Your task to perform on an android device: Search for vegetarian restaurants on Maps Image 0: 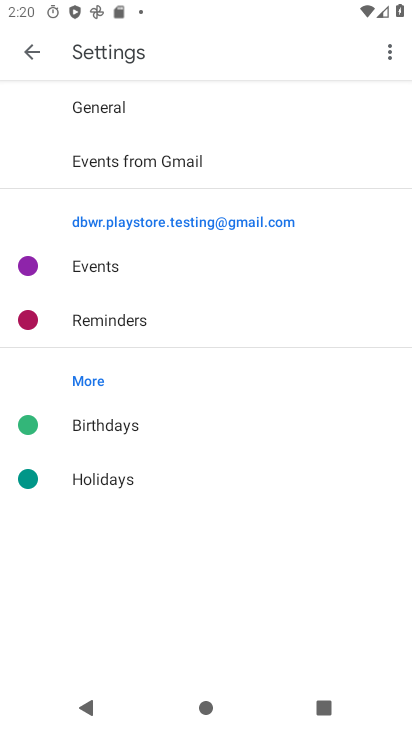
Step 0: press home button
Your task to perform on an android device: Search for vegetarian restaurants on Maps Image 1: 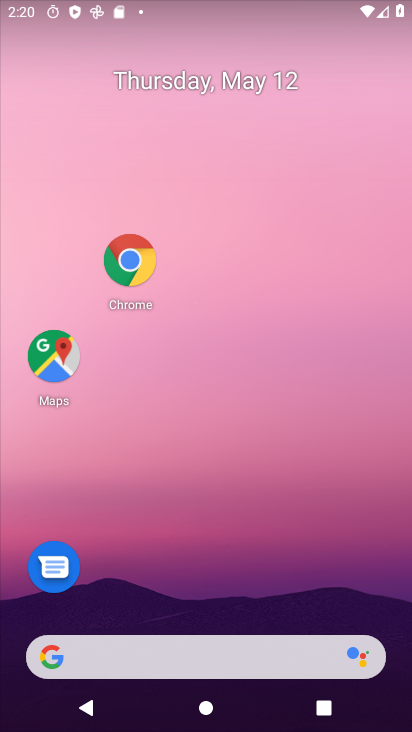
Step 1: click (64, 353)
Your task to perform on an android device: Search for vegetarian restaurants on Maps Image 2: 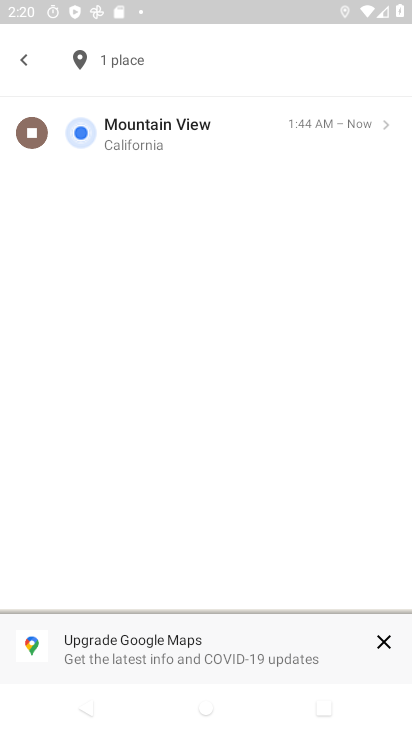
Step 2: click (374, 642)
Your task to perform on an android device: Search for vegetarian restaurants on Maps Image 3: 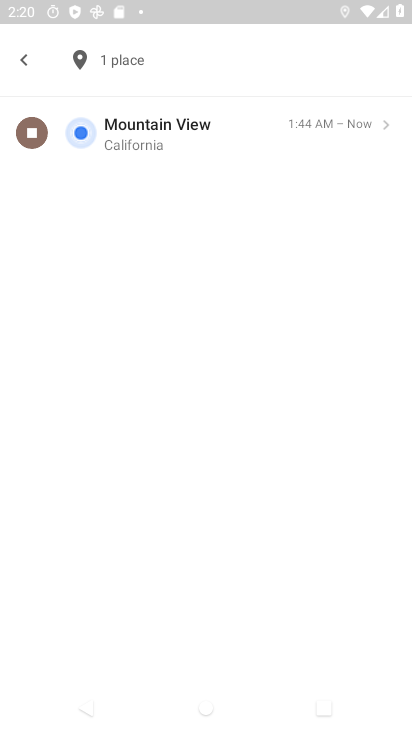
Step 3: click (14, 60)
Your task to perform on an android device: Search for vegetarian restaurants on Maps Image 4: 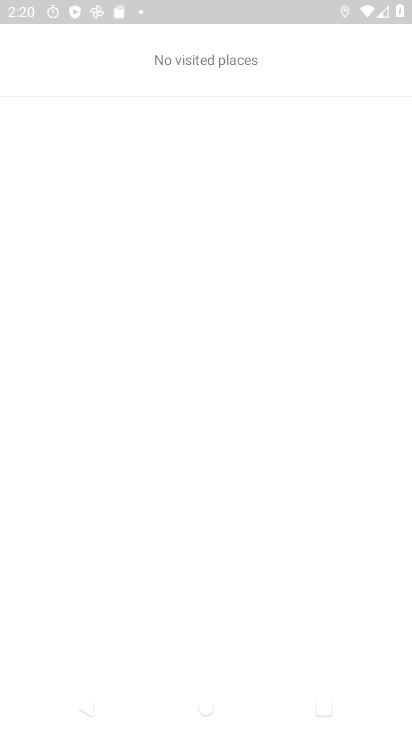
Step 4: press back button
Your task to perform on an android device: Search for vegetarian restaurants on Maps Image 5: 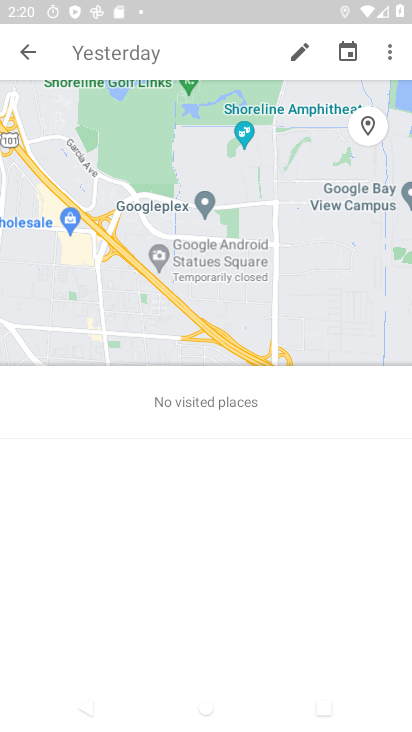
Step 5: click (28, 53)
Your task to perform on an android device: Search for vegetarian restaurants on Maps Image 6: 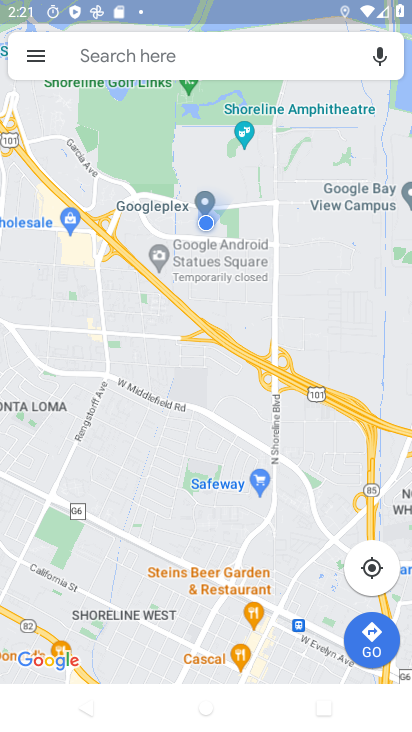
Step 6: click (126, 49)
Your task to perform on an android device: Search for vegetarian restaurants on Maps Image 7: 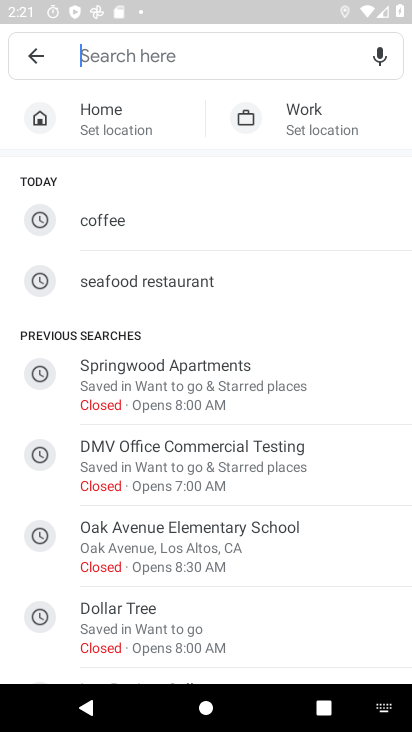
Step 7: drag from (180, 644) to (120, 210)
Your task to perform on an android device: Search for vegetarian restaurants on Maps Image 8: 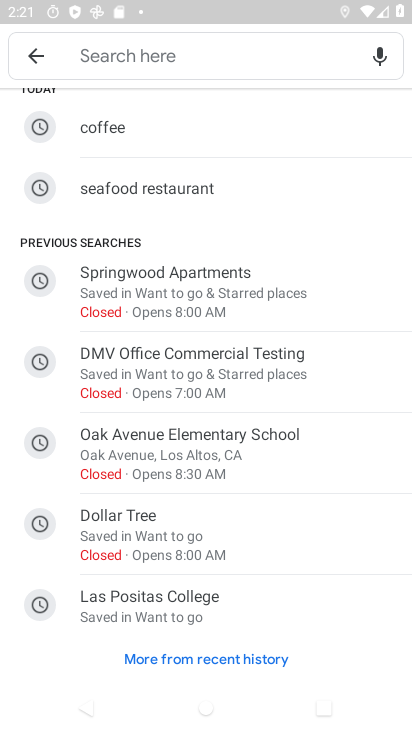
Step 8: click (231, 656)
Your task to perform on an android device: Search for vegetarian restaurants on Maps Image 9: 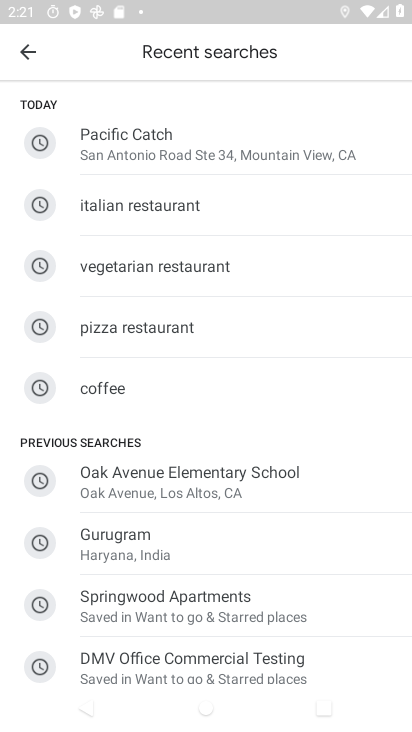
Step 9: drag from (201, 672) to (170, 323)
Your task to perform on an android device: Search for vegetarian restaurants on Maps Image 10: 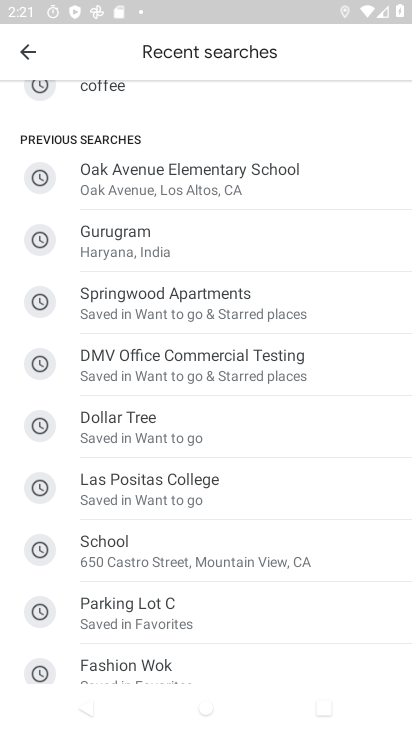
Step 10: drag from (164, 191) to (152, 568)
Your task to perform on an android device: Search for vegetarian restaurants on Maps Image 11: 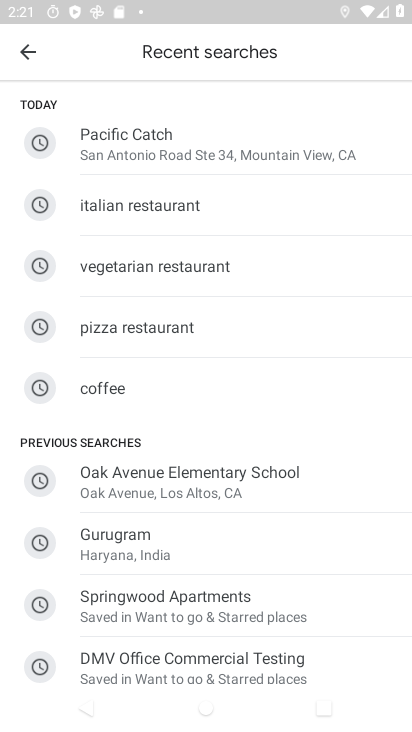
Step 11: click (145, 270)
Your task to perform on an android device: Search for vegetarian restaurants on Maps Image 12: 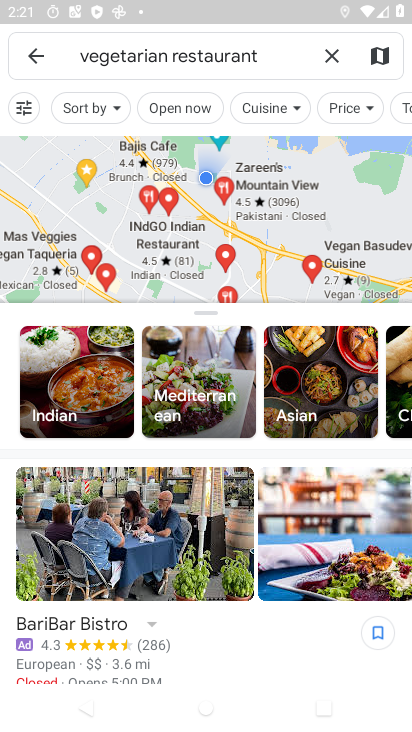
Step 12: task complete